Your task to perform on an android device: turn off data saver in the chrome app Image 0: 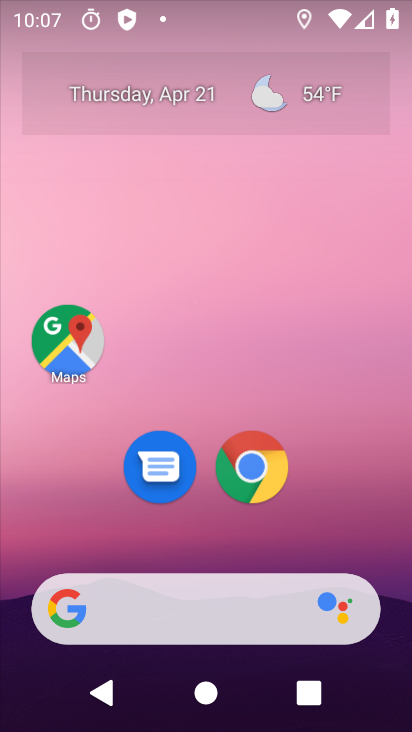
Step 0: drag from (383, 538) to (365, 116)
Your task to perform on an android device: turn off data saver in the chrome app Image 1: 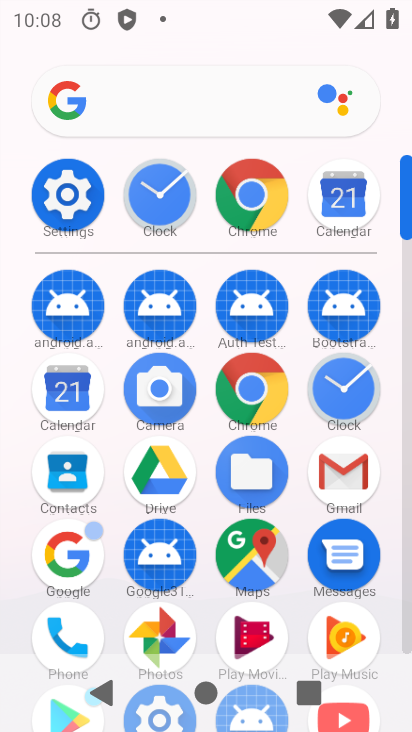
Step 1: click (242, 397)
Your task to perform on an android device: turn off data saver in the chrome app Image 2: 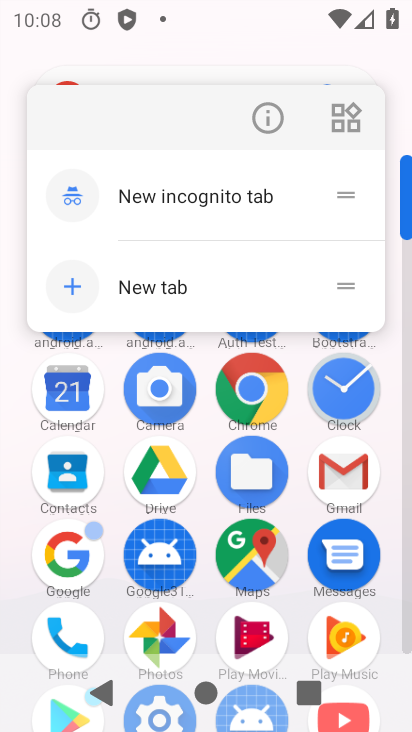
Step 2: click (241, 396)
Your task to perform on an android device: turn off data saver in the chrome app Image 3: 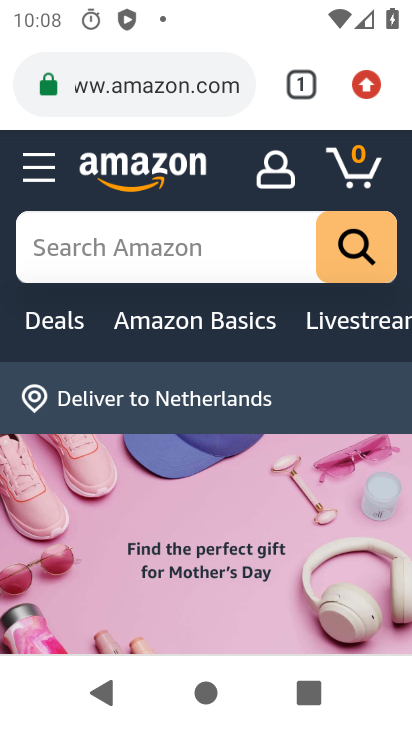
Step 3: drag from (364, 86) to (191, 534)
Your task to perform on an android device: turn off data saver in the chrome app Image 4: 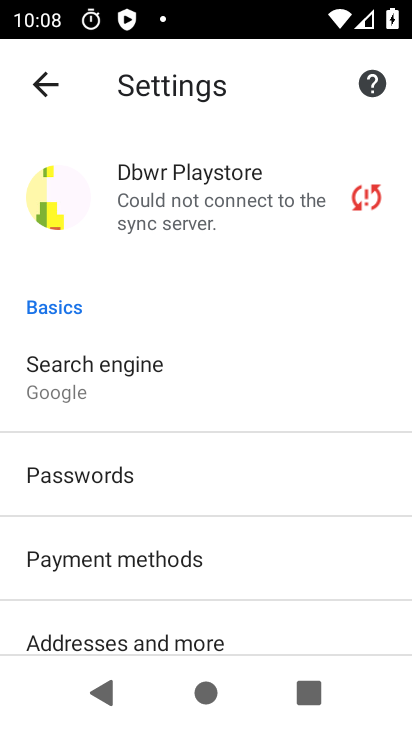
Step 4: drag from (274, 593) to (278, 373)
Your task to perform on an android device: turn off data saver in the chrome app Image 5: 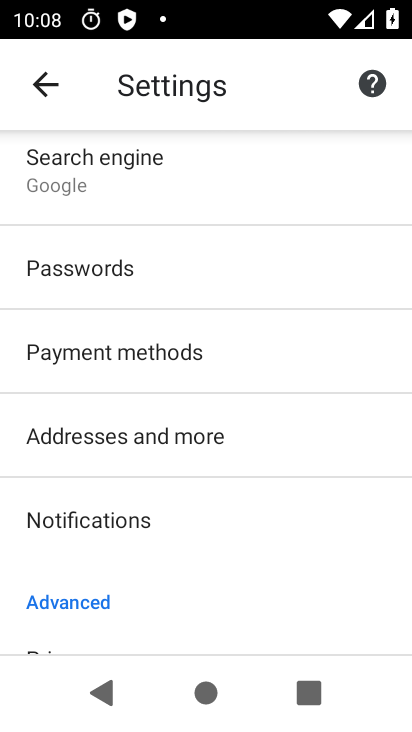
Step 5: drag from (303, 579) to (303, 315)
Your task to perform on an android device: turn off data saver in the chrome app Image 6: 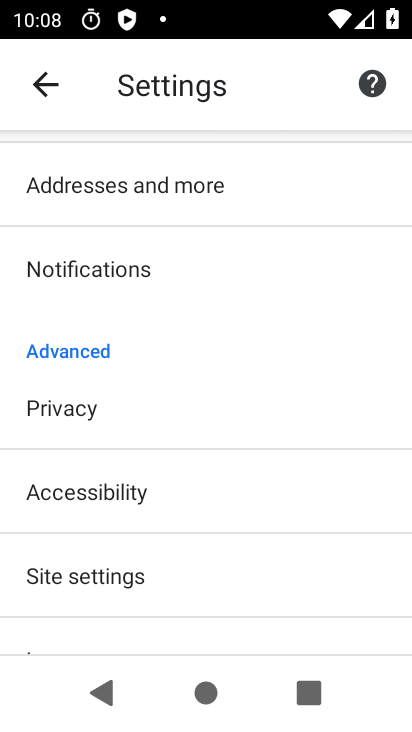
Step 6: drag from (286, 574) to (324, 388)
Your task to perform on an android device: turn off data saver in the chrome app Image 7: 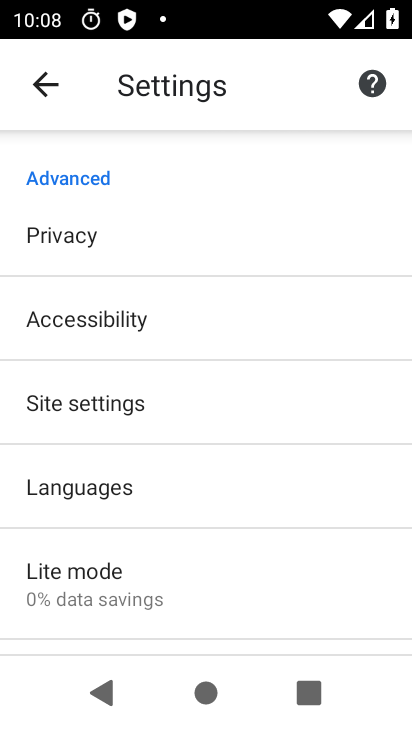
Step 7: click (127, 575)
Your task to perform on an android device: turn off data saver in the chrome app Image 8: 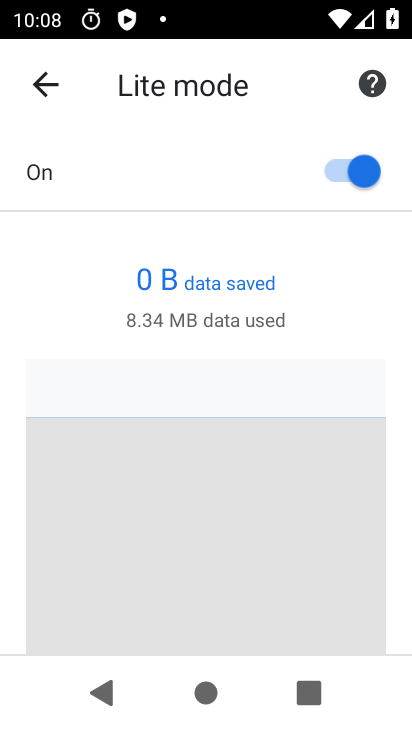
Step 8: click (342, 165)
Your task to perform on an android device: turn off data saver in the chrome app Image 9: 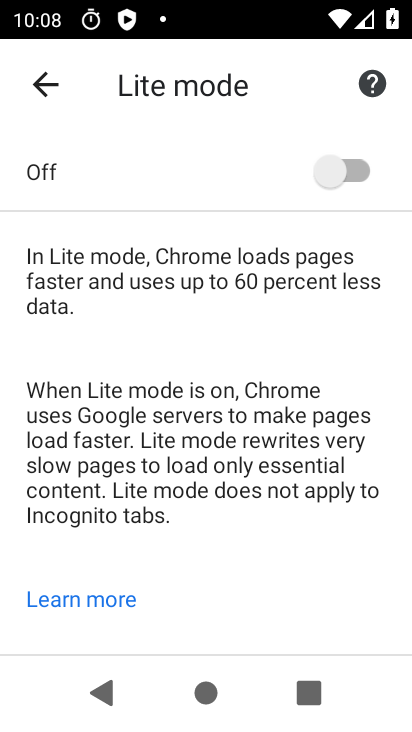
Step 9: task complete